Your task to perform on an android device: View the shopping cart on amazon.com. Search for razer blackwidow on amazon.com, select the first entry, add it to the cart, then select checkout. Image 0: 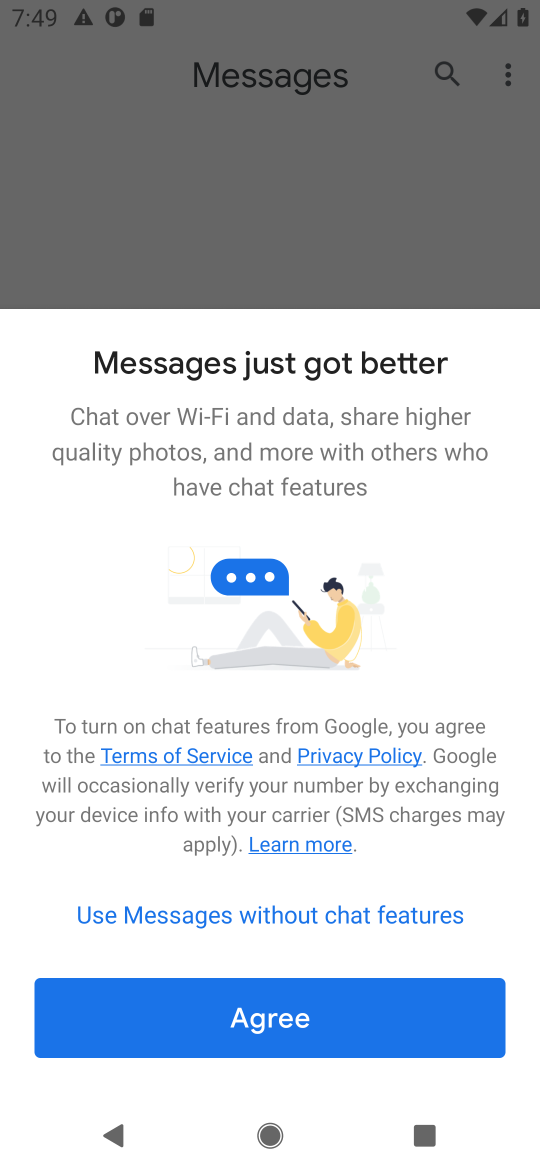
Step 0: press home button
Your task to perform on an android device: View the shopping cart on amazon.com. Search for razer blackwidow on amazon.com, select the first entry, add it to the cart, then select checkout. Image 1: 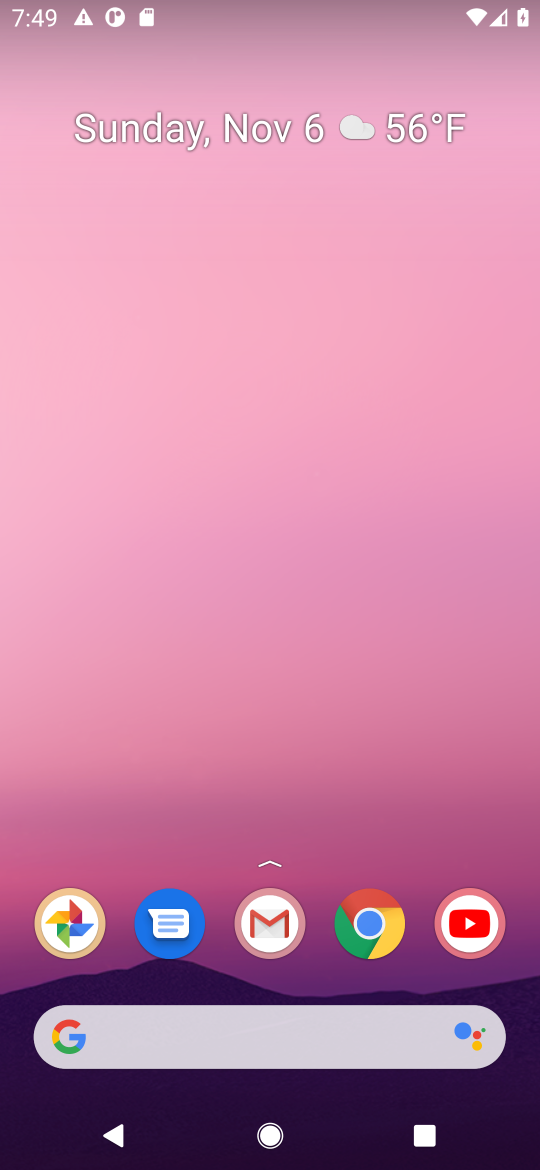
Step 1: click (356, 924)
Your task to perform on an android device: View the shopping cart on amazon.com. Search for razer blackwidow on amazon.com, select the first entry, add it to the cart, then select checkout. Image 2: 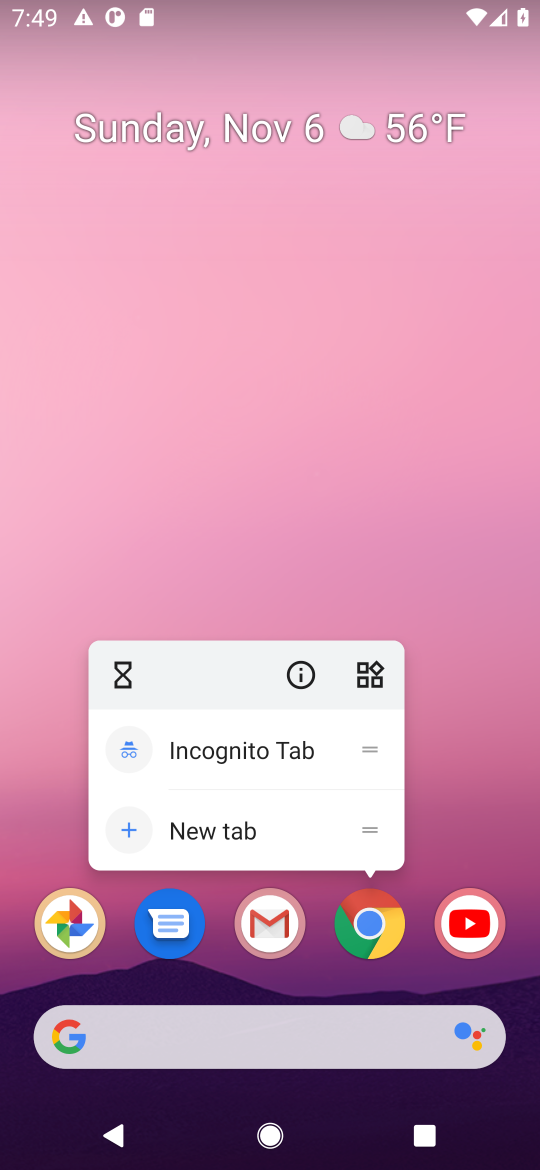
Step 2: click (382, 923)
Your task to perform on an android device: View the shopping cart on amazon.com. Search for razer blackwidow on amazon.com, select the first entry, add it to the cart, then select checkout. Image 3: 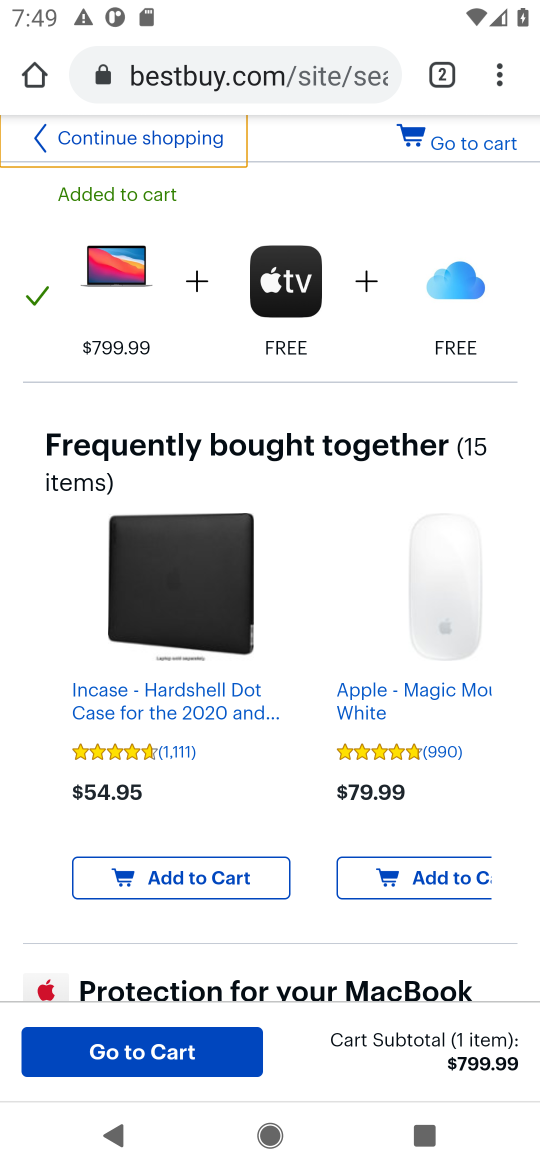
Step 3: click (233, 89)
Your task to perform on an android device: View the shopping cart on amazon.com. Search for razer blackwidow on amazon.com, select the first entry, add it to the cart, then select checkout. Image 4: 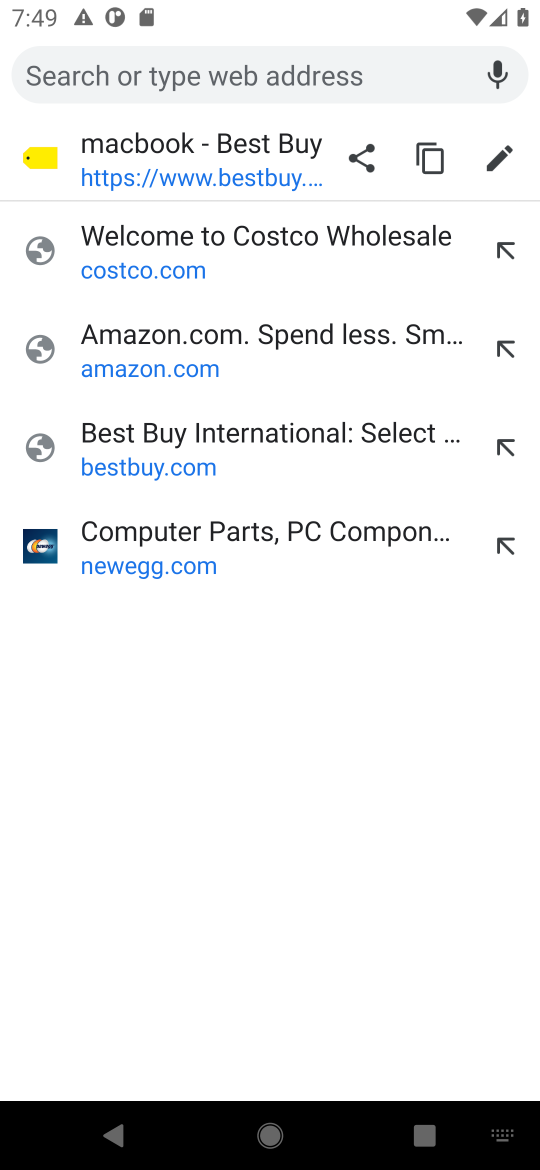
Step 4: click (181, 354)
Your task to perform on an android device: View the shopping cart on amazon.com. Search for razer blackwidow on amazon.com, select the first entry, add it to the cart, then select checkout. Image 5: 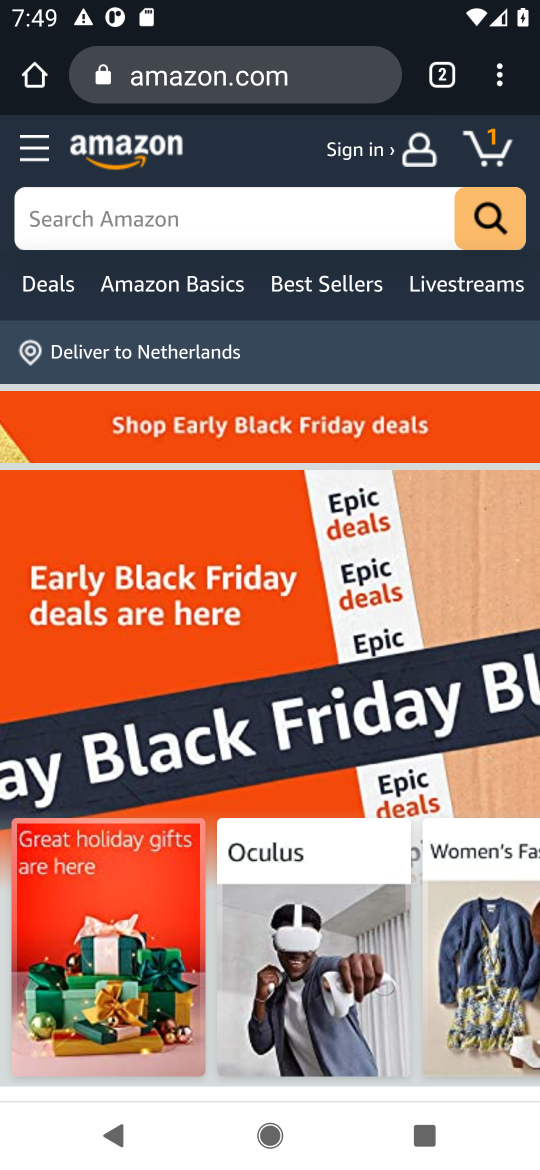
Step 5: click (484, 142)
Your task to perform on an android device: View the shopping cart on amazon.com. Search for razer blackwidow on amazon.com, select the first entry, add it to the cart, then select checkout. Image 6: 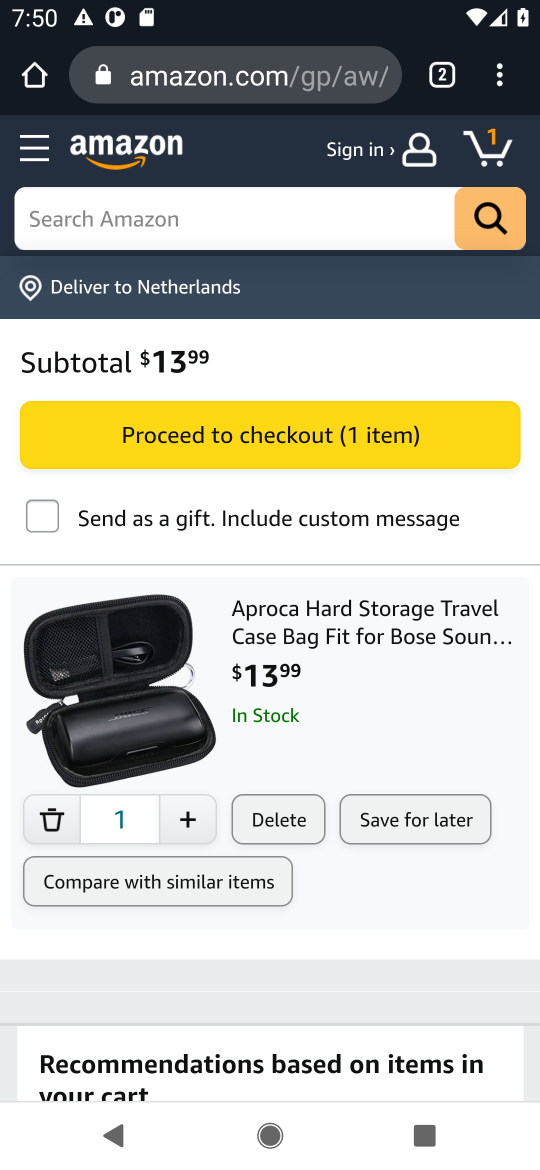
Step 6: click (316, 221)
Your task to perform on an android device: View the shopping cart on amazon.com. Search for razer blackwidow on amazon.com, select the first entry, add it to the cart, then select checkout. Image 7: 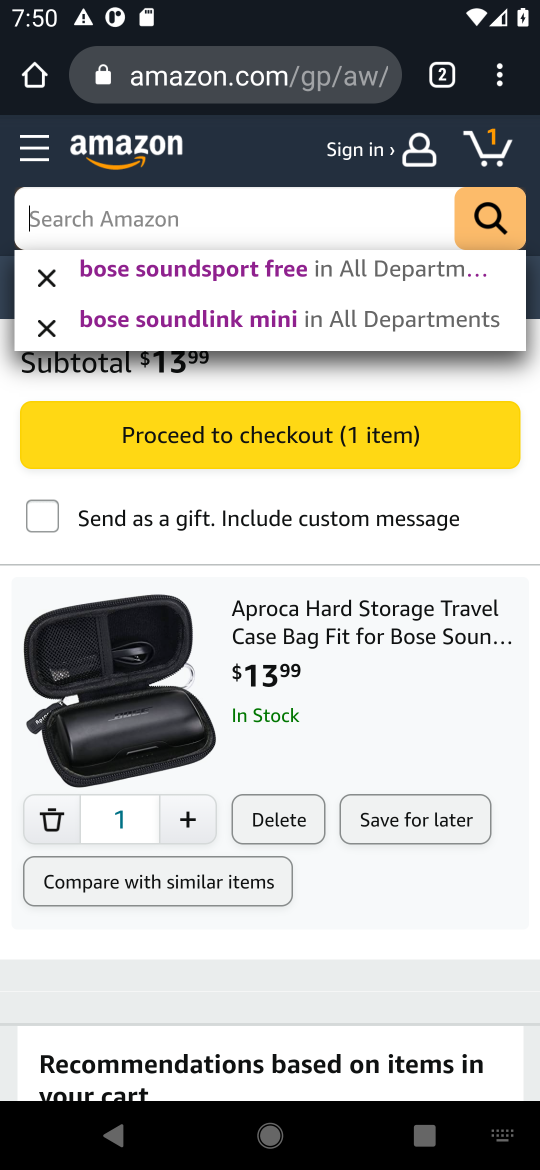
Step 7: type "razer blackwidow"
Your task to perform on an android device: View the shopping cart on amazon.com. Search for razer blackwidow on amazon.com, select the first entry, add it to the cart, then select checkout. Image 8: 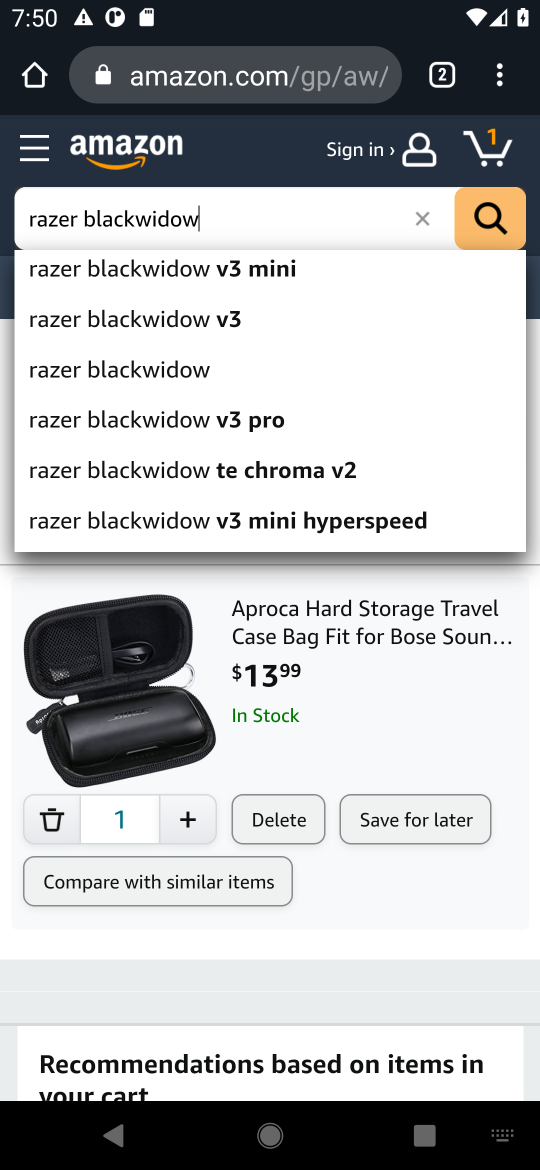
Step 8: click (184, 368)
Your task to perform on an android device: View the shopping cart on amazon.com. Search for razer blackwidow on amazon.com, select the first entry, add it to the cart, then select checkout. Image 9: 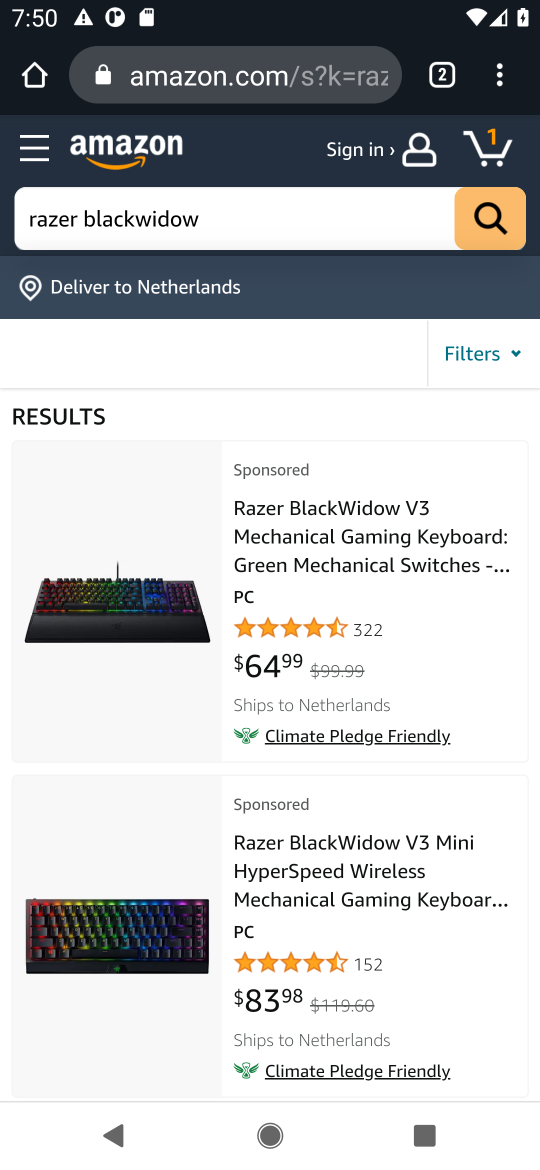
Step 9: click (266, 634)
Your task to perform on an android device: View the shopping cart on amazon.com. Search for razer blackwidow on amazon.com, select the first entry, add it to the cart, then select checkout. Image 10: 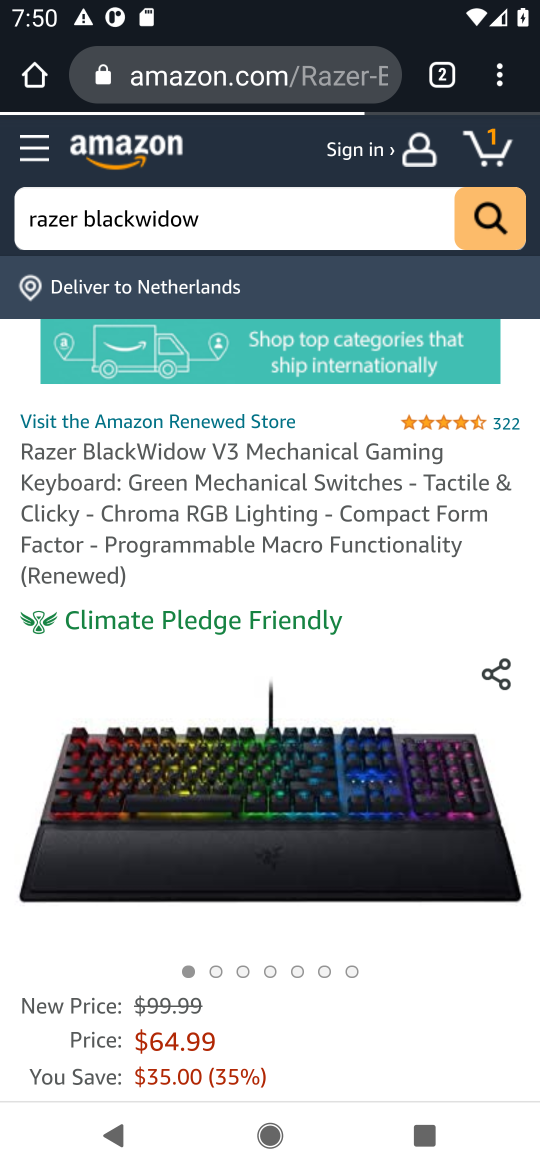
Step 10: drag from (290, 926) to (301, 475)
Your task to perform on an android device: View the shopping cart on amazon.com. Search for razer blackwidow on amazon.com, select the first entry, add it to the cart, then select checkout. Image 11: 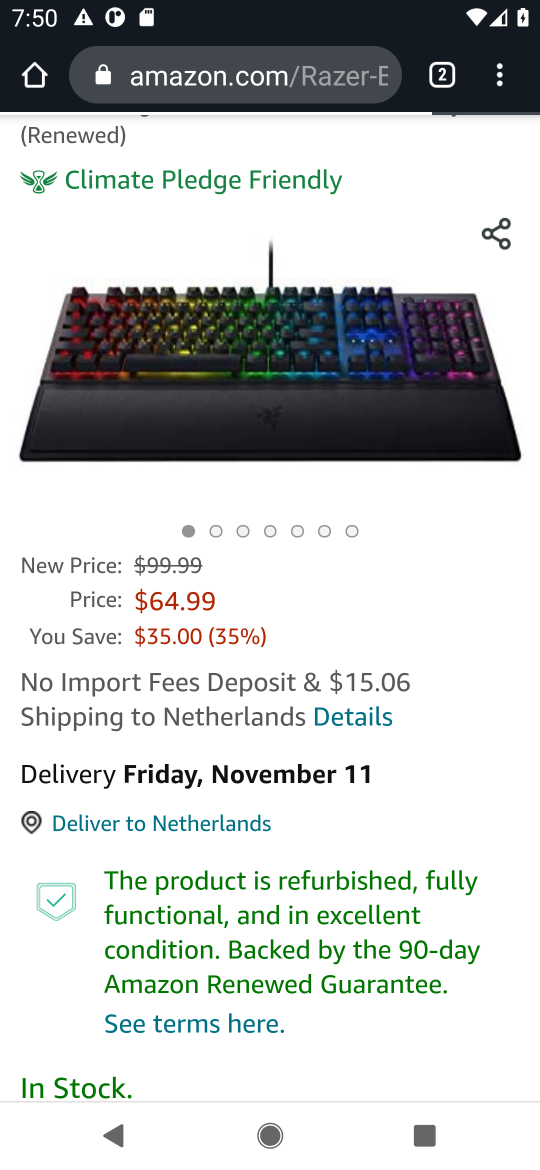
Step 11: drag from (256, 956) to (261, 431)
Your task to perform on an android device: View the shopping cart on amazon.com. Search for razer blackwidow on amazon.com, select the first entry, add it to the cart, then select checkout. Image 12: 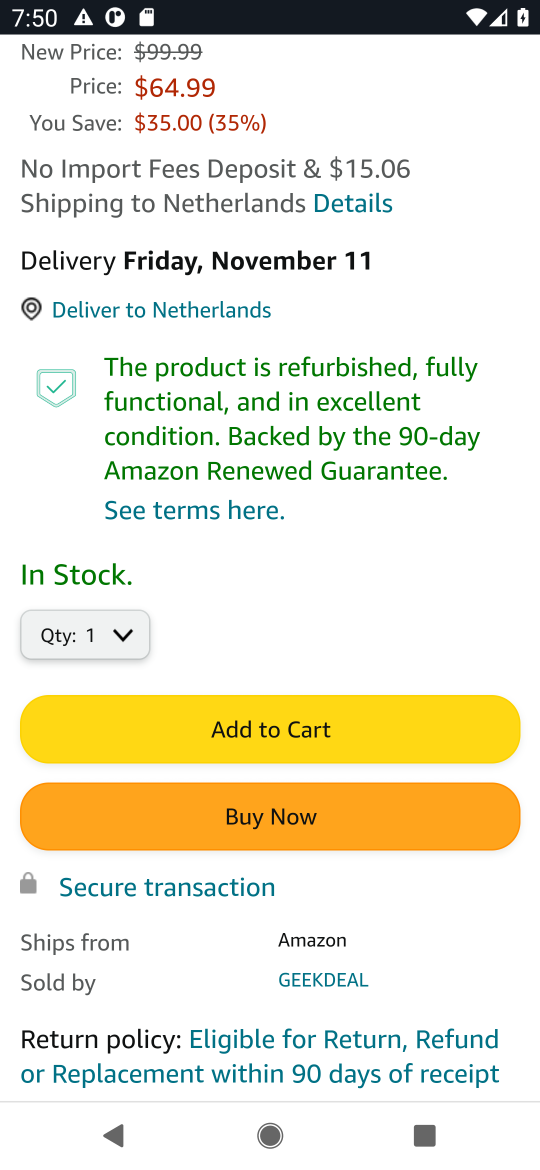
Step 12: click (283, 720)
Your task to perform on an android device: View the shopping cart on amazon.com. Search for razer blackwidow on amazon.com, select the first entry, add it to the cart, then select checkout. Image 13: 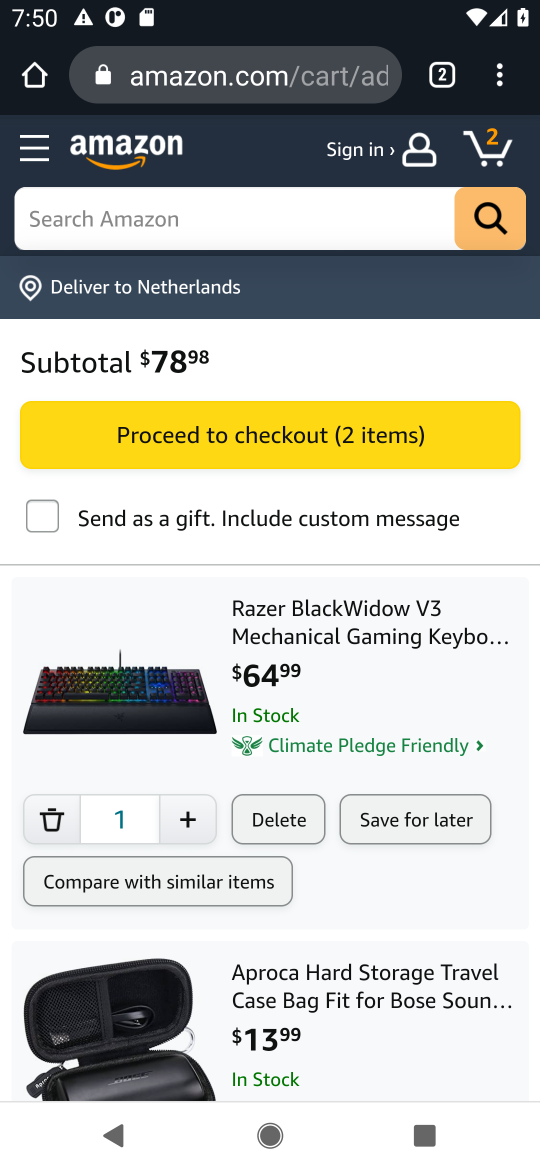
Step 13: click (256, 437)
Your task to perform on an android device: View the shopping cart on amazon.com. Search for razer blackwidow on amazon.com, select the first entry, add it to the cart, then select checkout. Image 14: 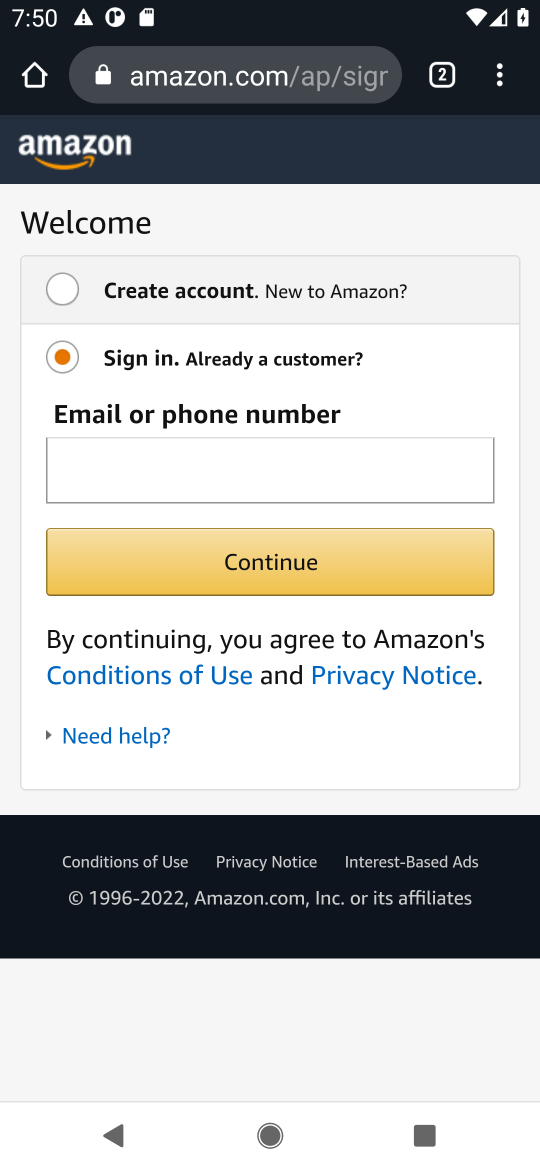
Step 14: task complete